Your task to perform on an android device: Search for seafood restaurants on Google Maps Image 0: 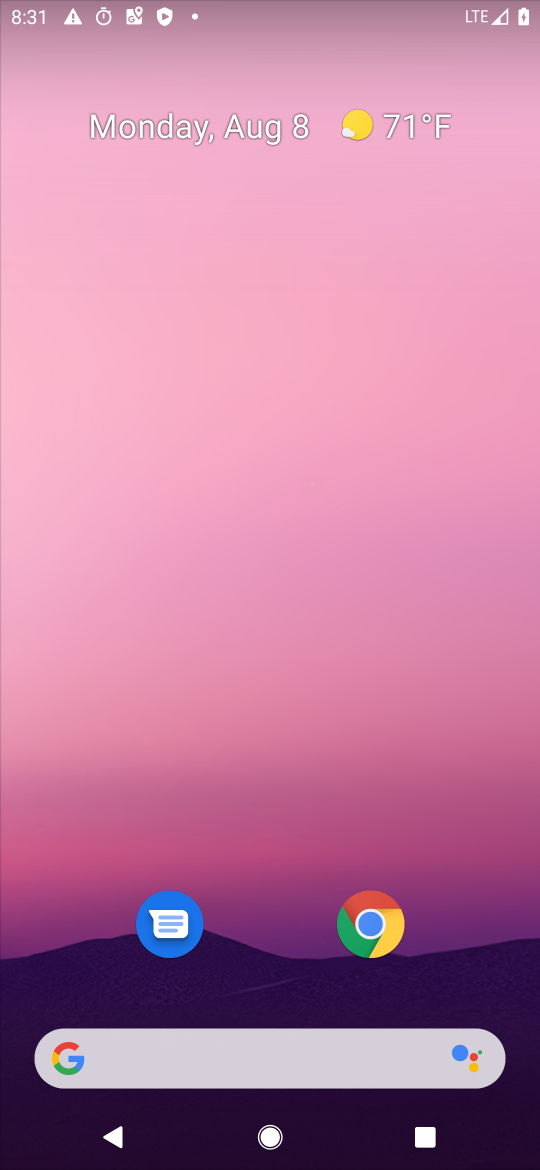
Step 0: drag from (328, 945) to (347, 143)
Your task to perform on an android device: Search for seafood restaurants on Google Maps Image 1: 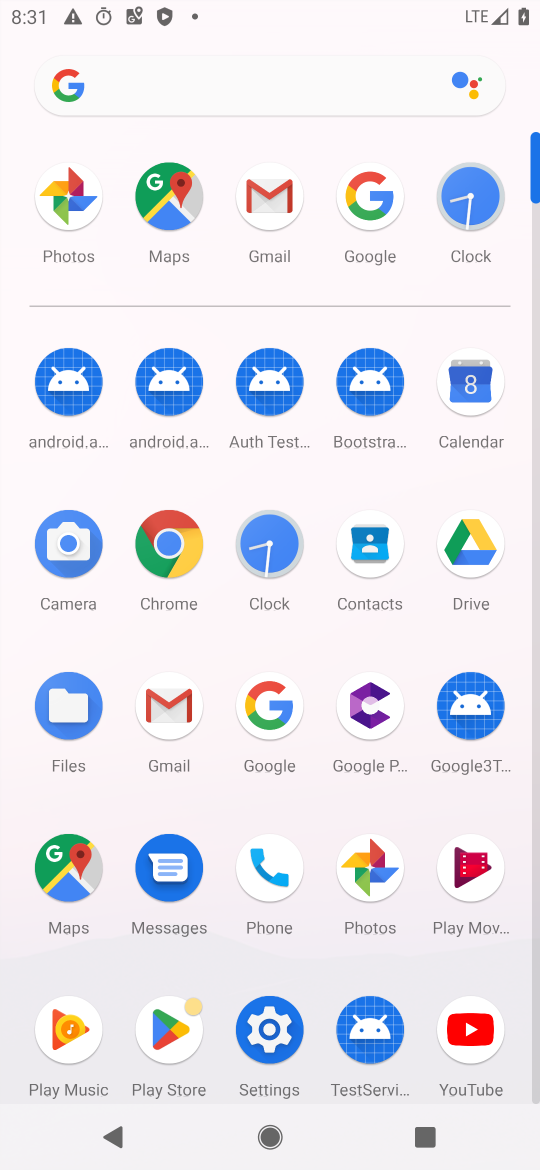
Step 1: click (167, 190)
Your task to perform on an android device: Search for seafood restaurants on Google Maps Image 2: 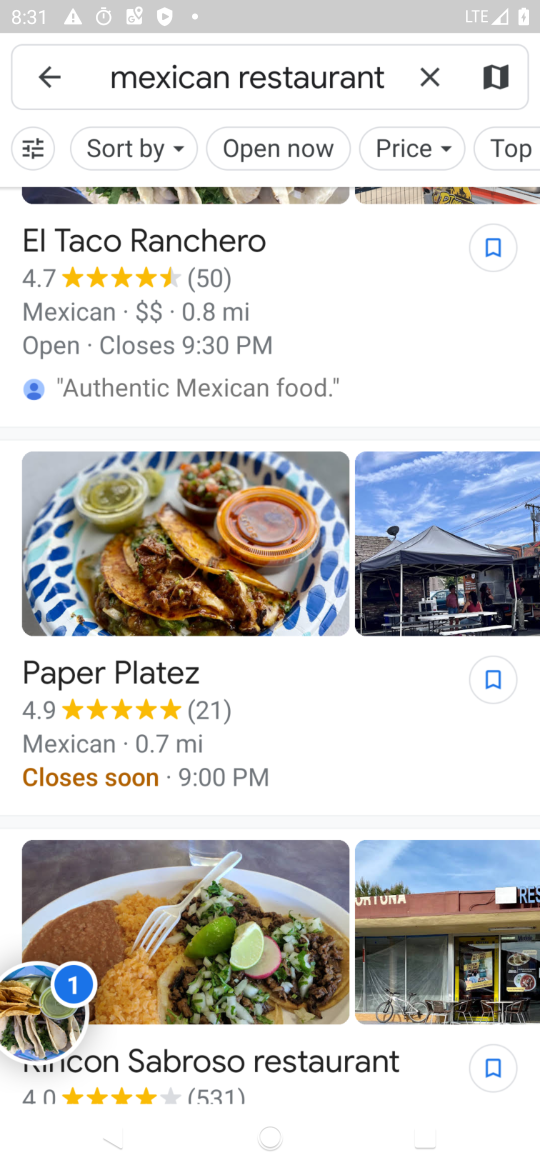
Step 2: click (167, 190)
Your task to perform on an android device: Search for seafood restaurants on Google Maps Image 3: 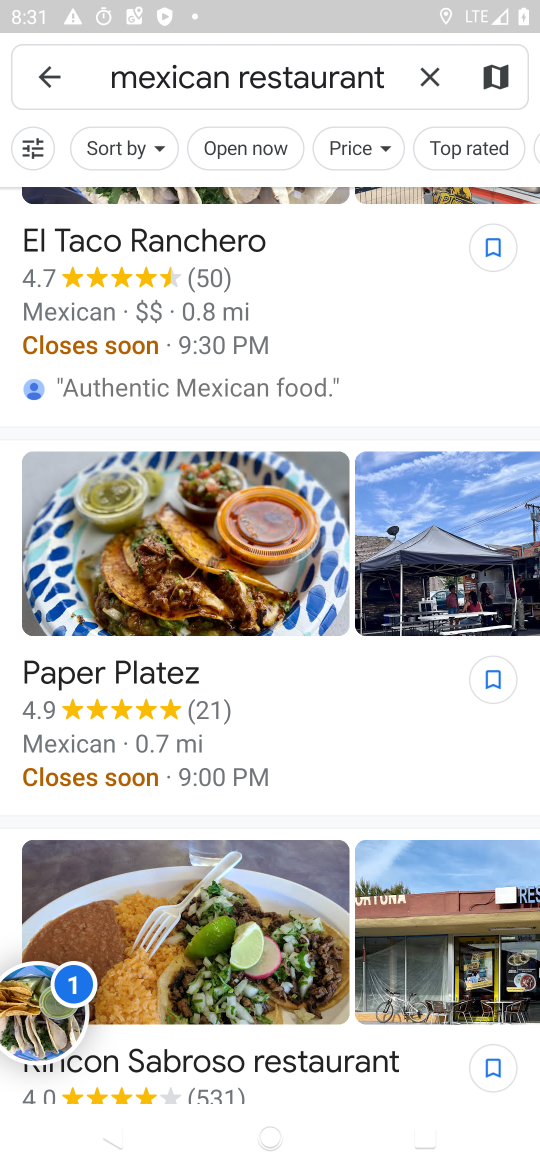
Step 3: click (424, 71)
Your task to perform on an android device: Search for seafood restaurants on Google Maps Image 4: 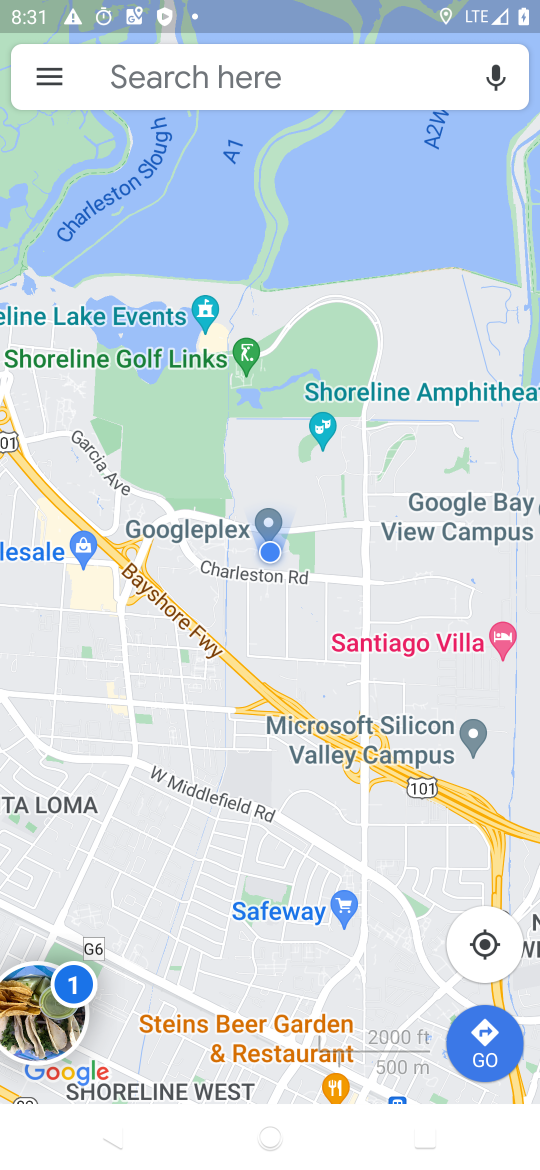
Step 4: click (290, 75)
Your task to perform on an android device: Search for seafood restaurants on Google Maps Image 5: 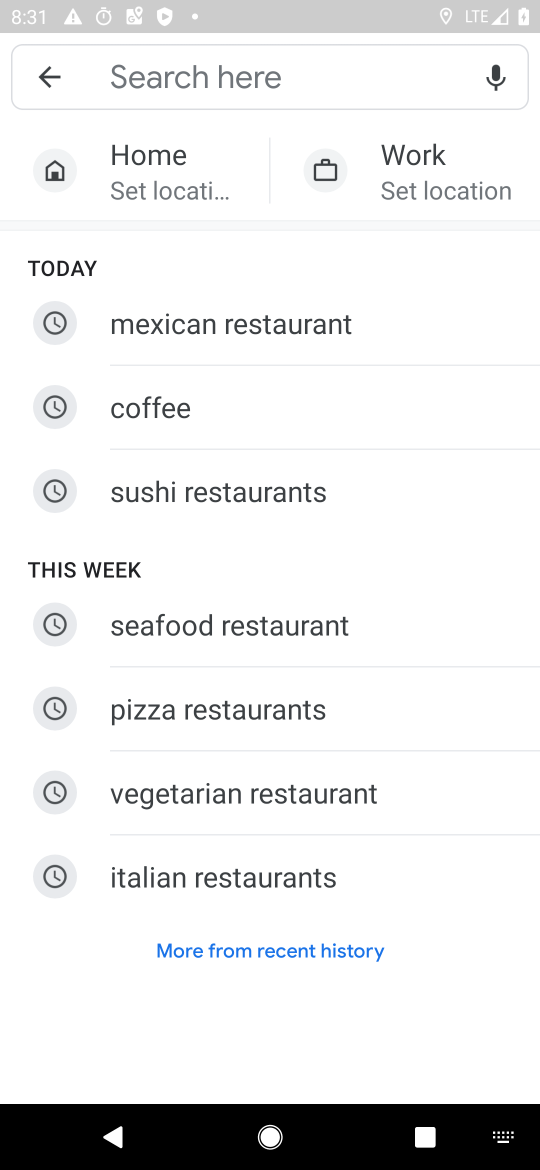
Step 5: click (318, 629)
Your task to perform on an android device: Search for seafood restaurants on Google Maps Image 6: 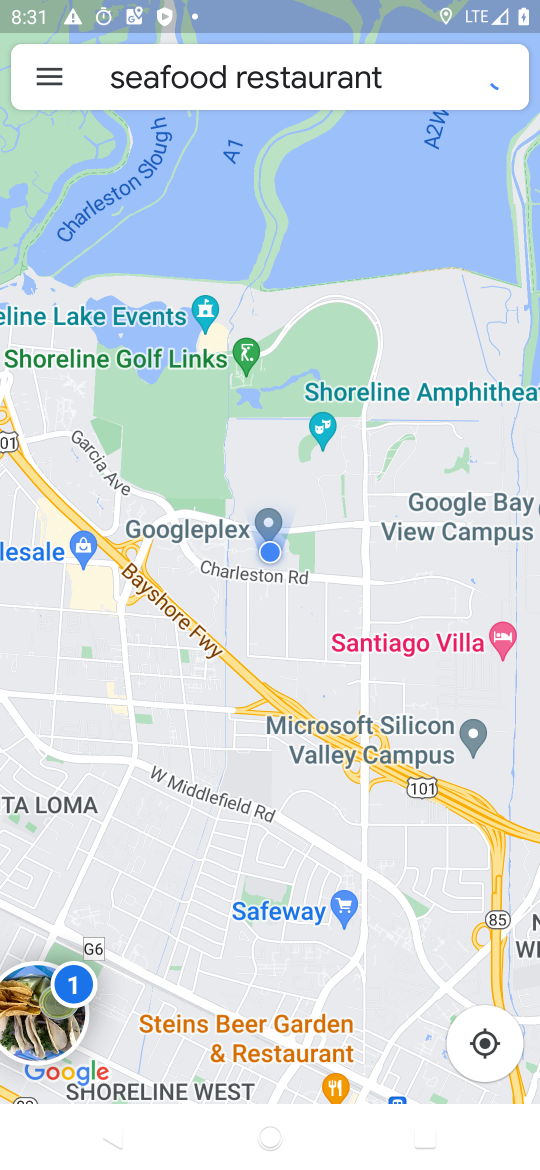
Step 6: task complete